Your task to perform on an android device: Open Youtube and go to the subscriptions tab Image 0: 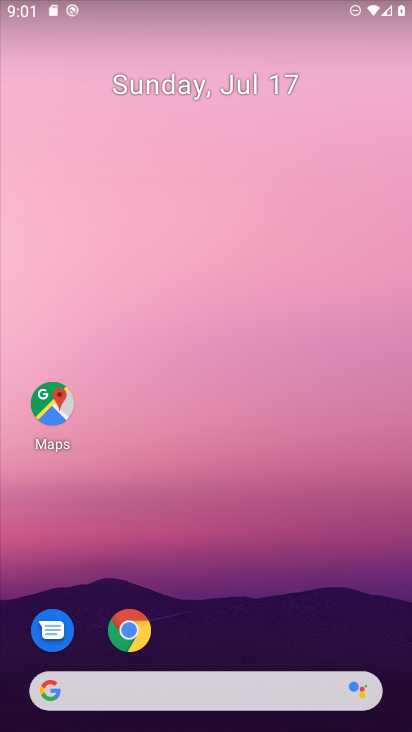
Step 0: drag from (175, 601) to (150, 160)
Your task to perform on an android device: Open Youtube and go to the subscriptions tab Image 1: 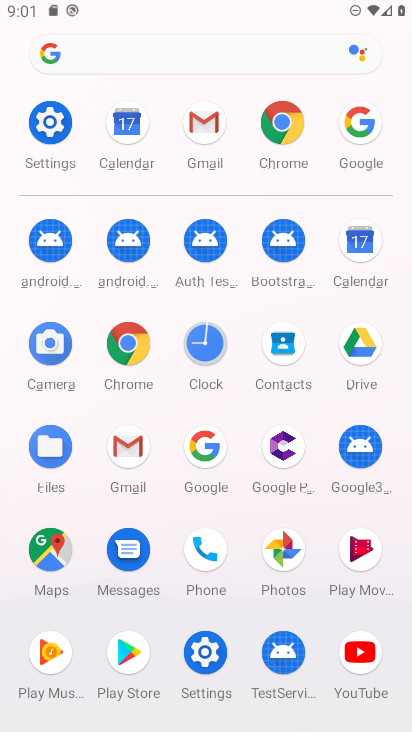
Step 1: click (351, 647)
Your task to perform on an android device: Open Youtube and go to the subscriptions tab Image 2: 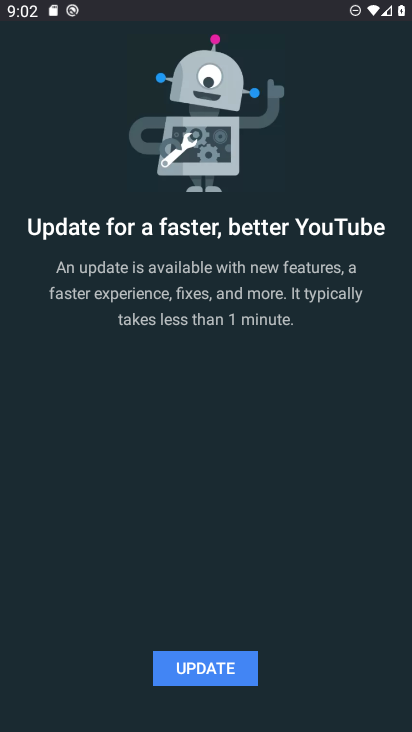
Step 2: task complete